Your task to perform on an android device: Show me recent news Image 0: 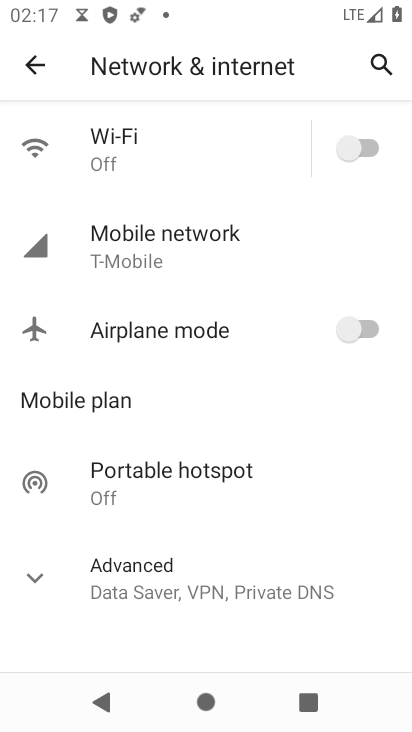
Step 0: press home button
Your task to perform on an android device: Show me recent news Image 1: 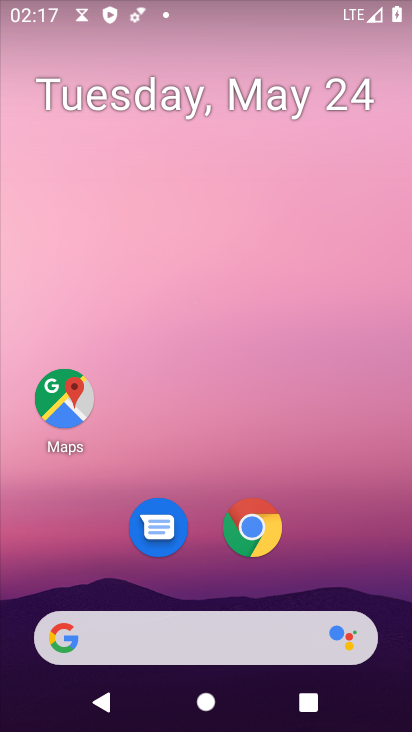
Step 1: click (65, 638)
Your task to perform on an android device: Show me recent news Image 2: 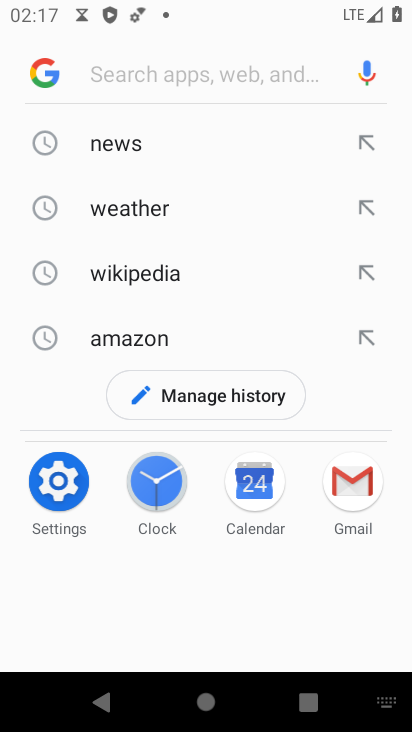
Step 2: click (138, 141)
Your task to perform on an android device: Show me recent news Image 3: 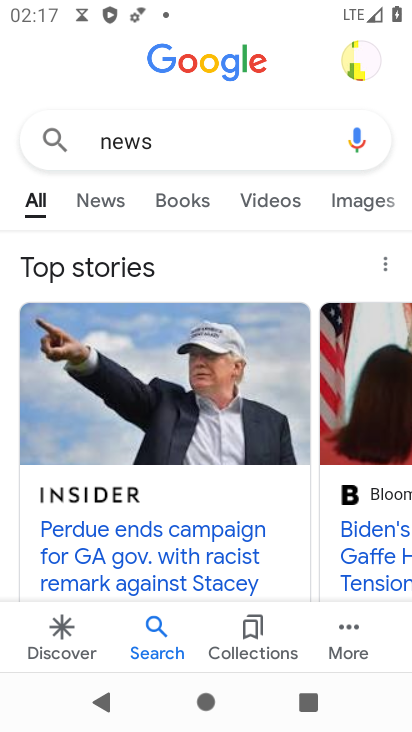
Step 3: click (97, 195)
Your task to perform on an android device: Show me recent news Image 4: 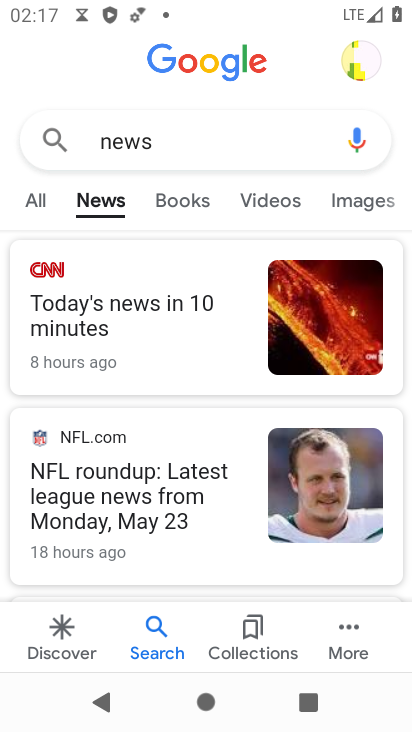
Step 4: task complete